Your task to perform on an android device: turn on data saver in the chrome app Image 0: 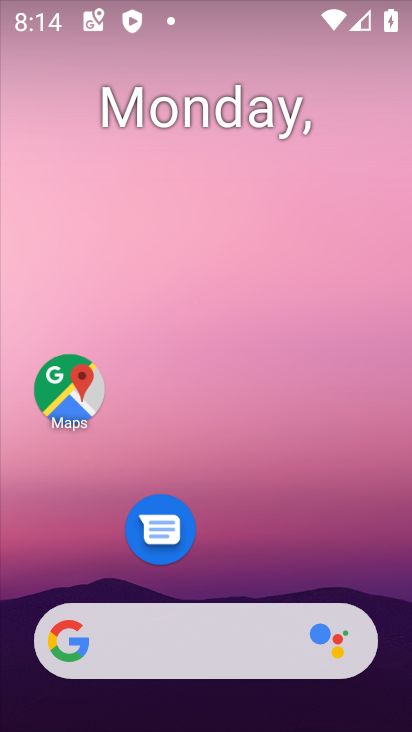
Step 0: drag from (222, 519) to (222, 129)
Your task to perform on an android device: turn on data saver in the chrome app Image 1: 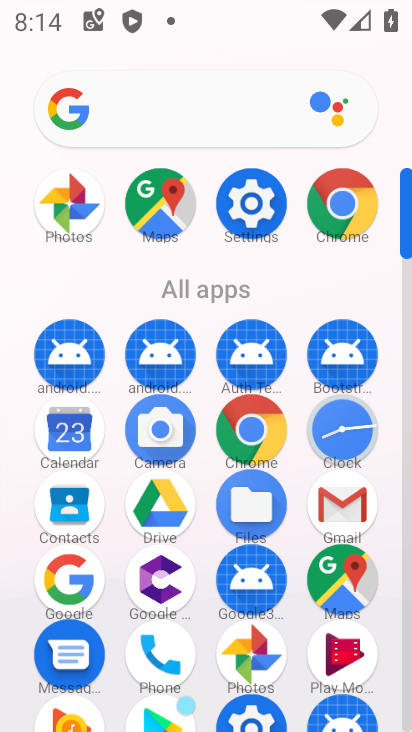
Step 1: click (329, 189)
Your task to perform on an android device: turn on data saver in the chrome app Image 2: 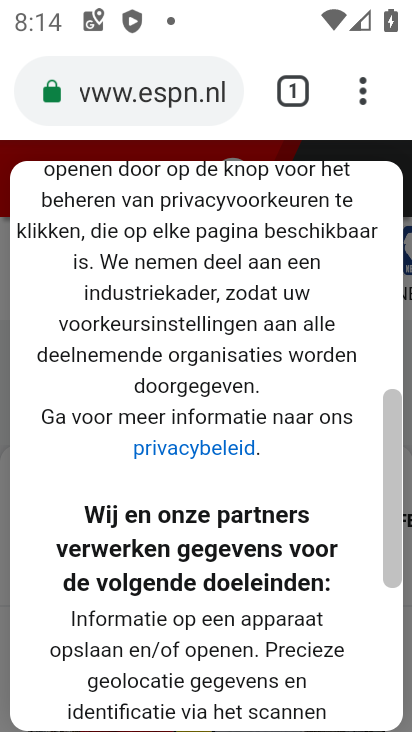
Step 2: click (364, 94)
Your task to perform on an android device: turn on data saver in the chrome app Image 3: 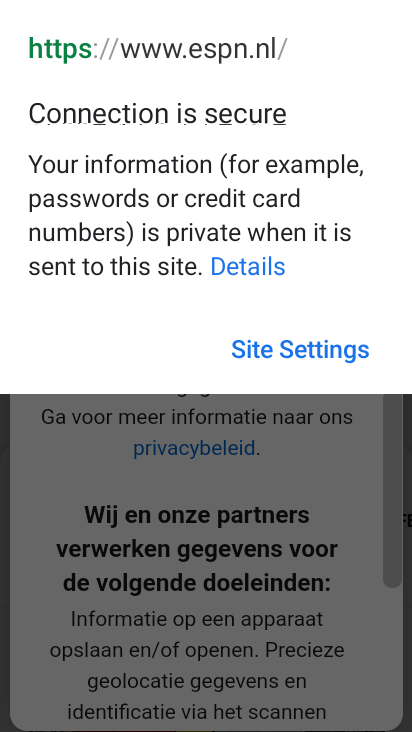
Step 3: click (284, 405)
Your task to perform on an android device: turn on data saver in the chrome app Image 4: 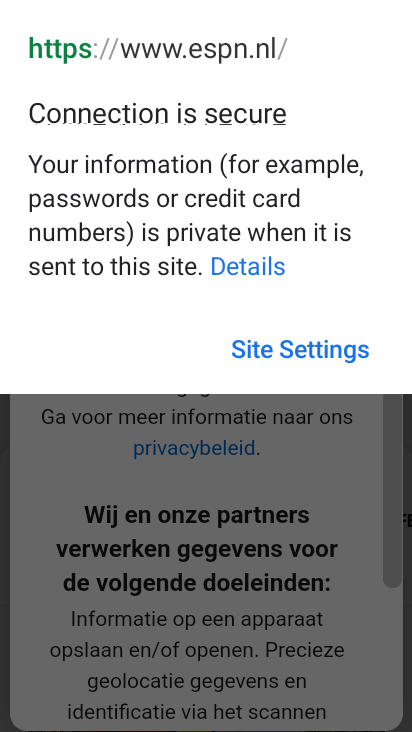
Step 4: click (272, 357)
Your task to perform on an android device: turn on data saver in the chrome app Image 5: 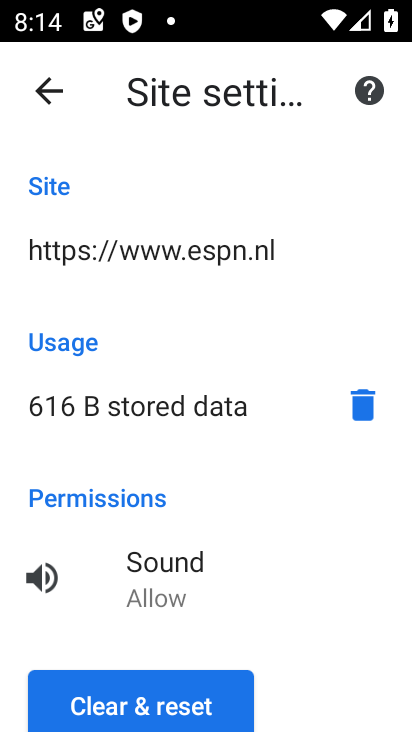
Step 5: click (50, 97)
Your task to perform on an android device: turn on data saver in the chrome app Image 6: 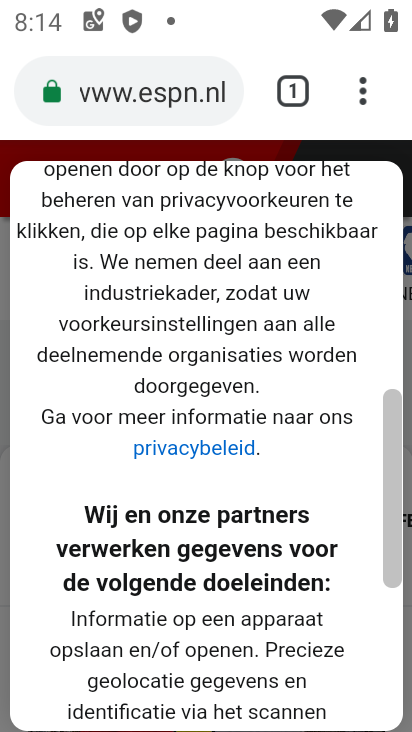
Step 6: drag from (357, 96) to (137, 557)
Your task to perform on an android device: turn on data saver in the chrome app Image 7: 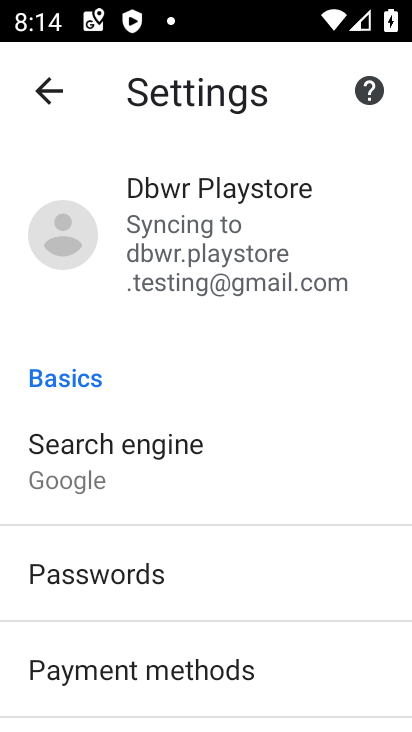
Step 7: drag from (169, 637) to (215, 256)
Your task to perform on an android device: turn on data saver in the chrome app Image 8: 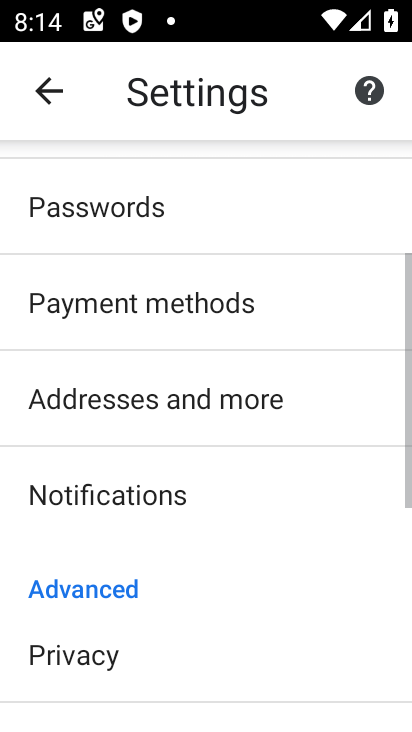
Step 8: drag from (182, 649) to (196, 392)
Your task to perform on an android device: turn on data saver in the chrome app Image 9: 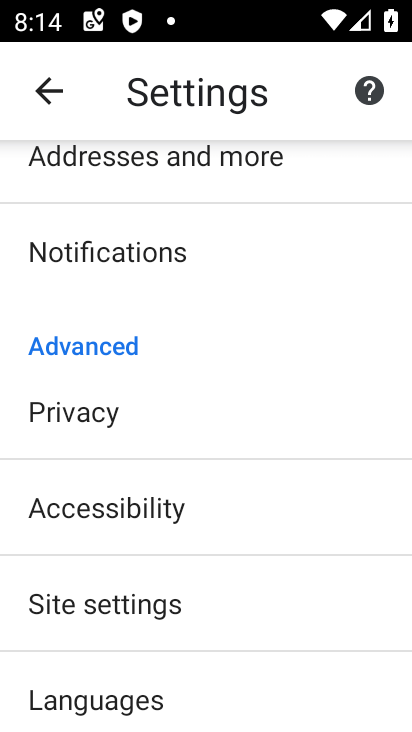
Step 9: drag from (174, 698) to (189, 430)
Your task to perform on an android device: turn on data saver in the chrome app Image 10: 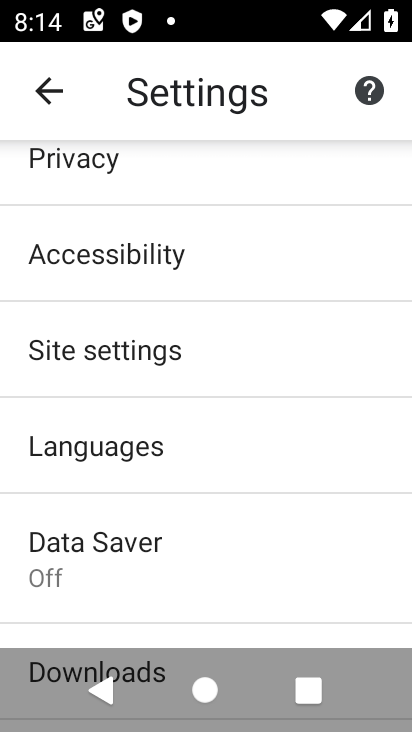
Step 10: click (145, 578)
Your task to perform on an android device: turn on data saver in the chrome app Image 11: 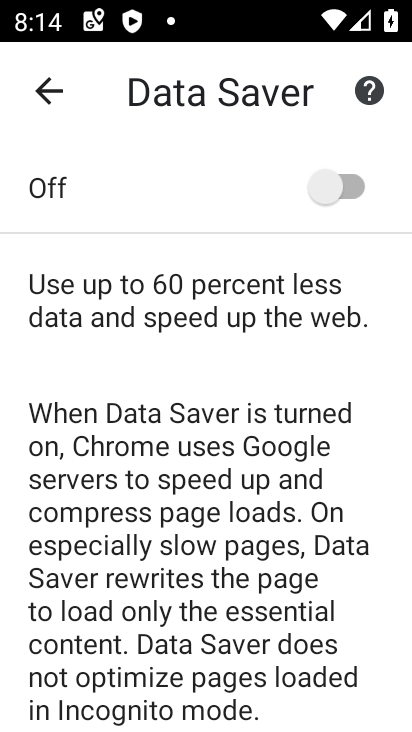
Step 11: click (354, 185)
Your task to perform on an android device: turn on data saver in the chrome app Image 12: 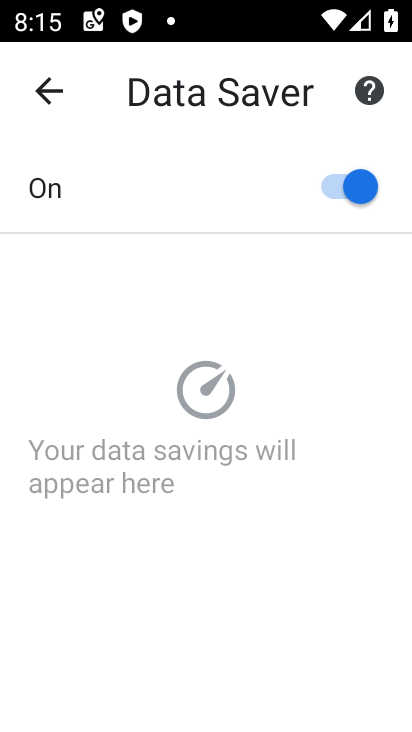
Step 12: task complete